Your task to perform on an android device: Open the Play Movies app and select the watchlist tab. Image 0: 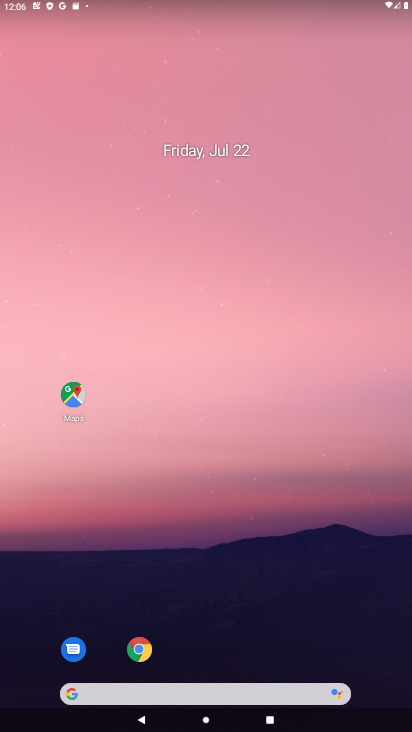
Step 0: drag from (227, 698) to (242, 325)
Your task to perform on an android device: Open the Play Movies app and select the watchlist tab. Image 1: 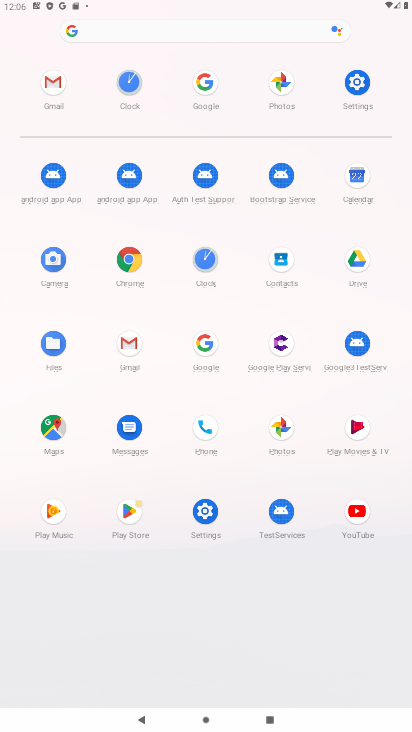
Step 1: click (357, 428)
Your task to perform on an android device: Open the Play Movies app and select the watchlist tab. Image 2: 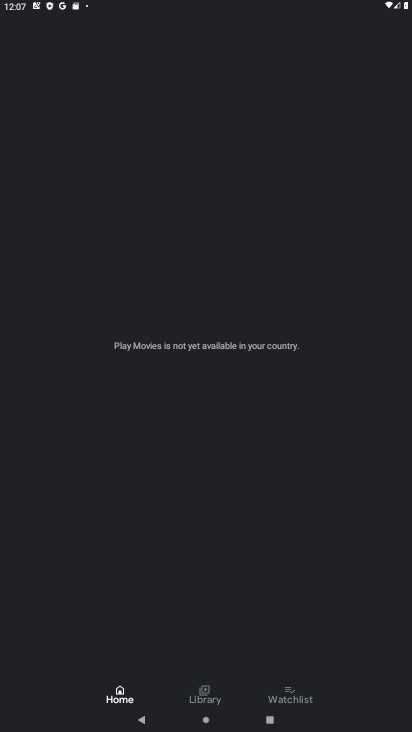
Step 2: click (308, 692)
Your task to perform on an android device: Open the Play Movies app and select the watchlist tab. Image 3: 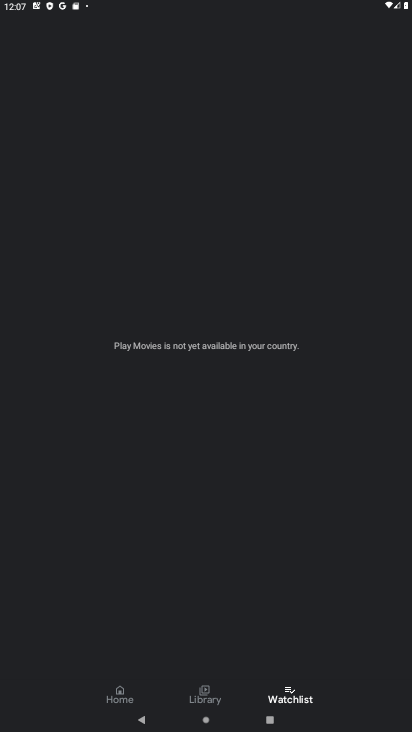
Step 3: task complete